Your task to perform on an android device: Go to notification settings Image 0: 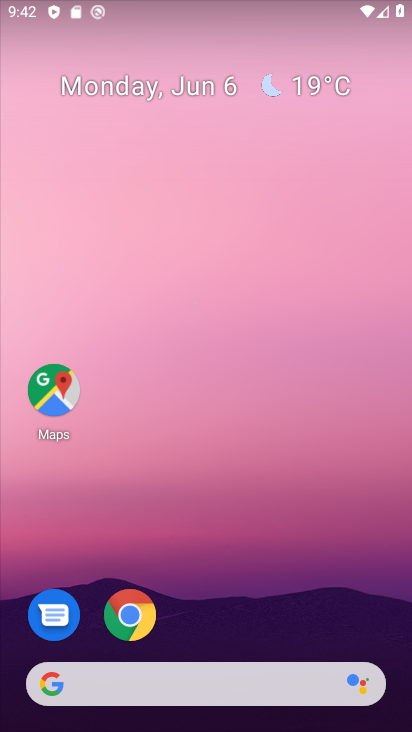
Step 0: drag from (287, 626) to (199, 0)
Your task to perform on an android device: Go to notification settings Image 1: 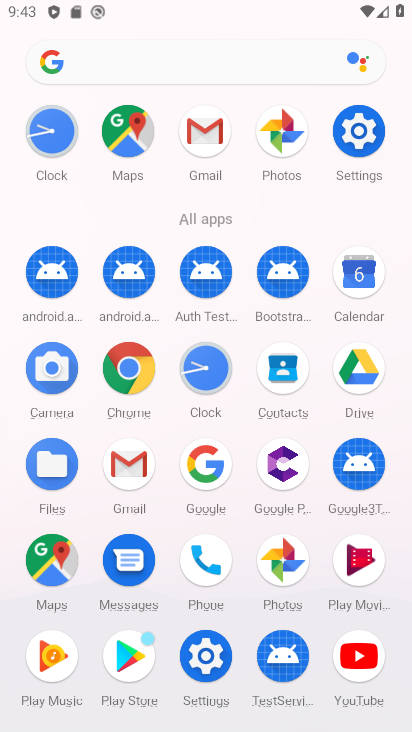
Step 1: click (373, 159)
Your task to perform on an android device: Go to notification settings Image 2: 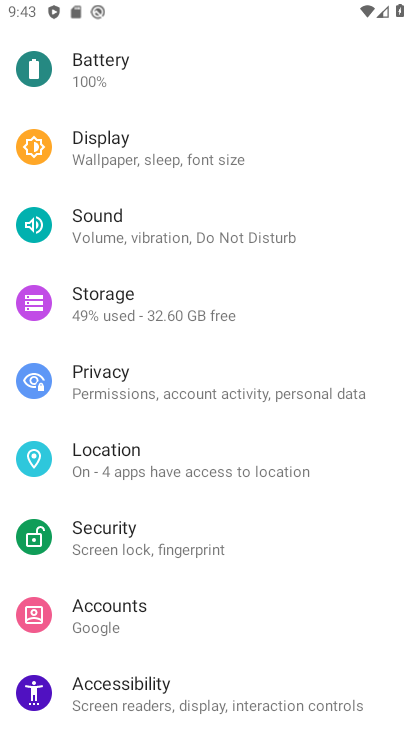
Step 2: task complete